Your task to perform on an android device: toggle translation in the chrome app Image 0: 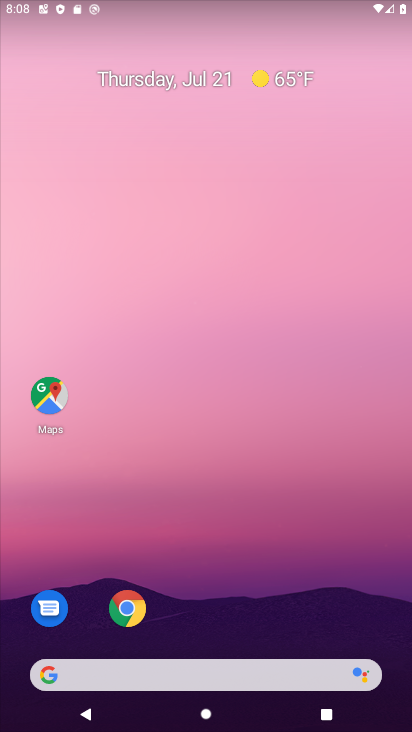
Step 0: click (128, 608)
Your task to perform on an android device: toggle translation in the chrome app Image 1: 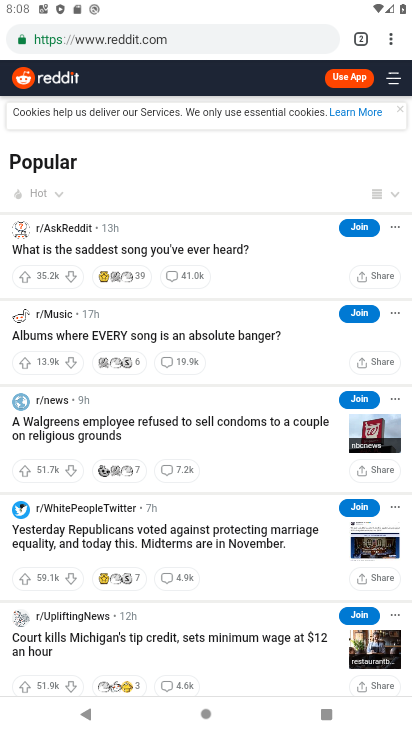
Step 1: click (393, 39)
Your task to perform on an android device: toggle translation in the chrome app Image 2: 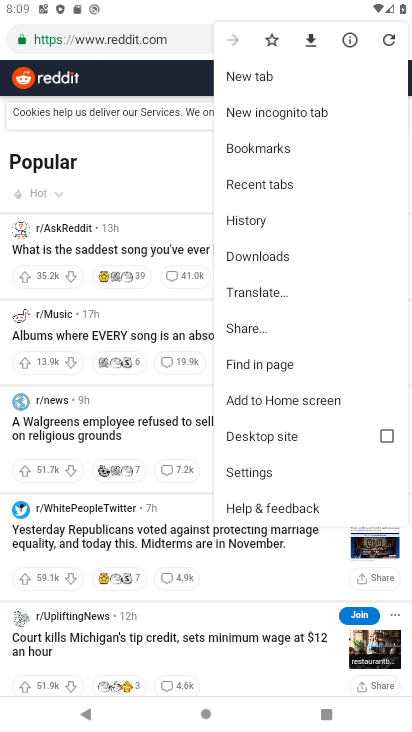
Step 2: click (257, 474)
Your task to perform on an android device: toggle translation in the chrome app Image 3: 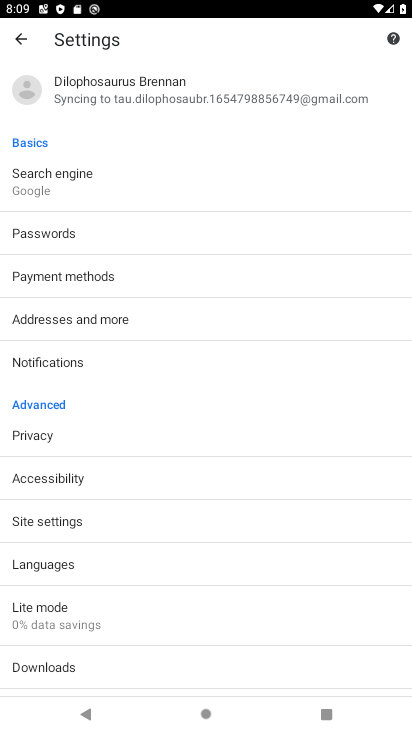
Step 3: click (48, 561)
Your task to perform on an android device: toggle translation in the chrome app Image 4: 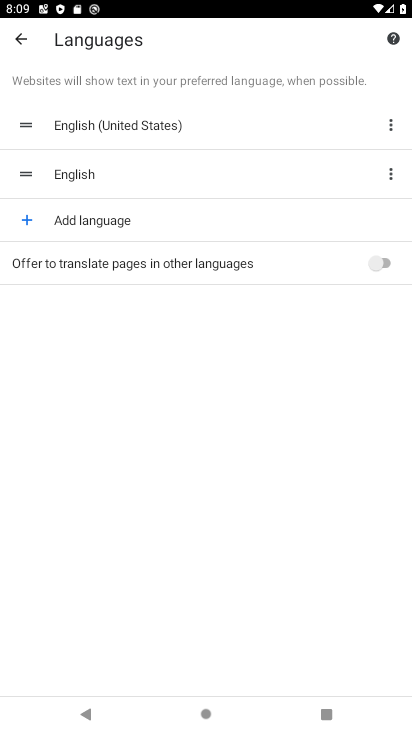
Step 4: click (376, 267)
Your task to perform on an android device: toggle translation in the chrome app Image 5: 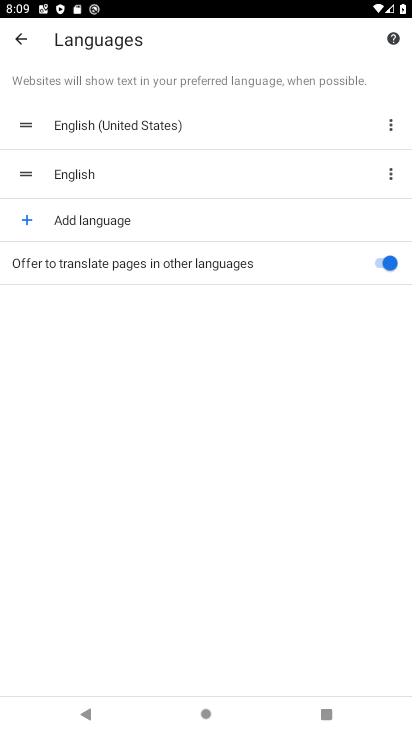
Step 5: task complete